Your task to perform on an android device: Go to ESPN.com Image 0: 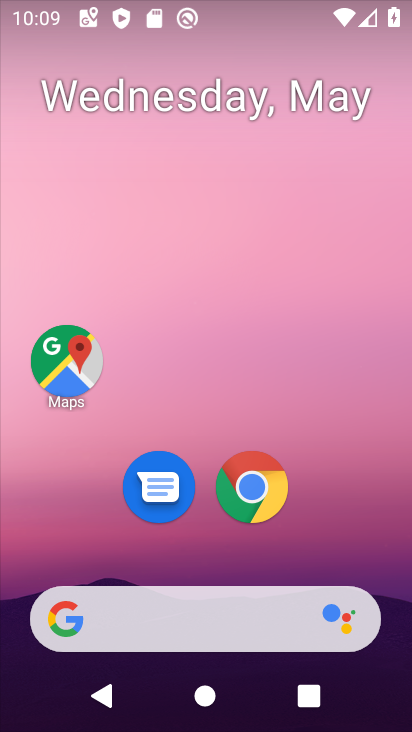
Step 0: click (260, 520)
Your task to perform on an android device: Go to ESPN.com Image 1: 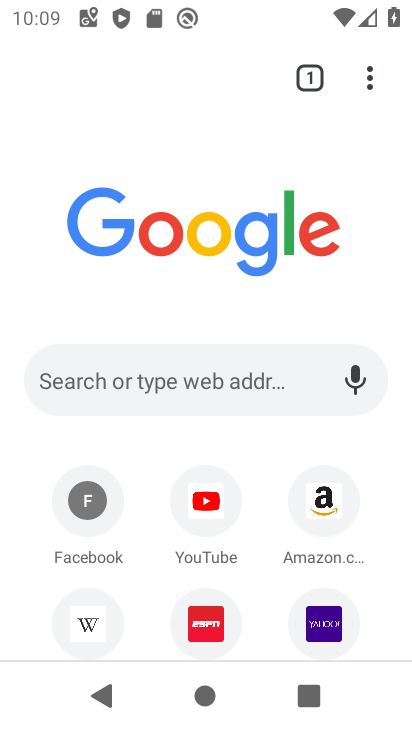
Step 1: click (212, 595)
Your task to perform on an android device: Go to ESPN.com Image 2: 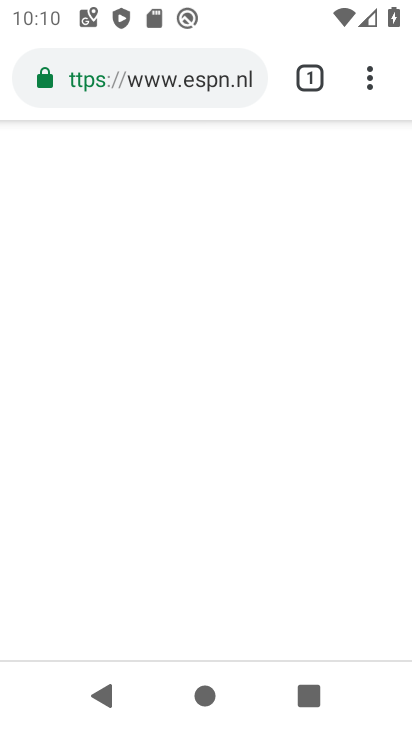
Step 2: task complete